Your task to perform on an android device: What's the weather today? Image 0: 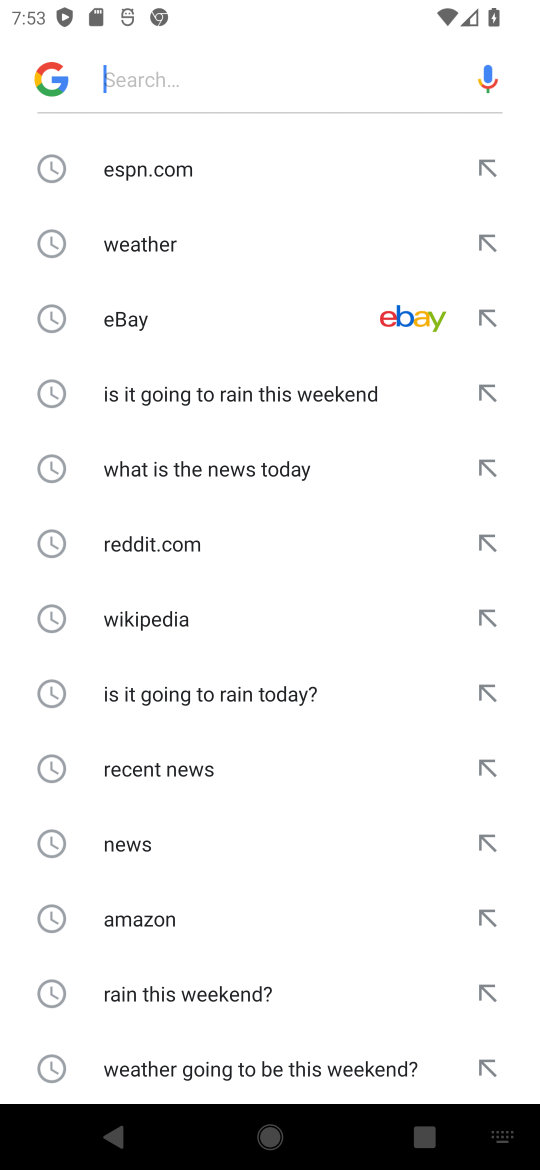
Step 0: press home button
Your task to perform on an android device: What's the weather today? Image 1: 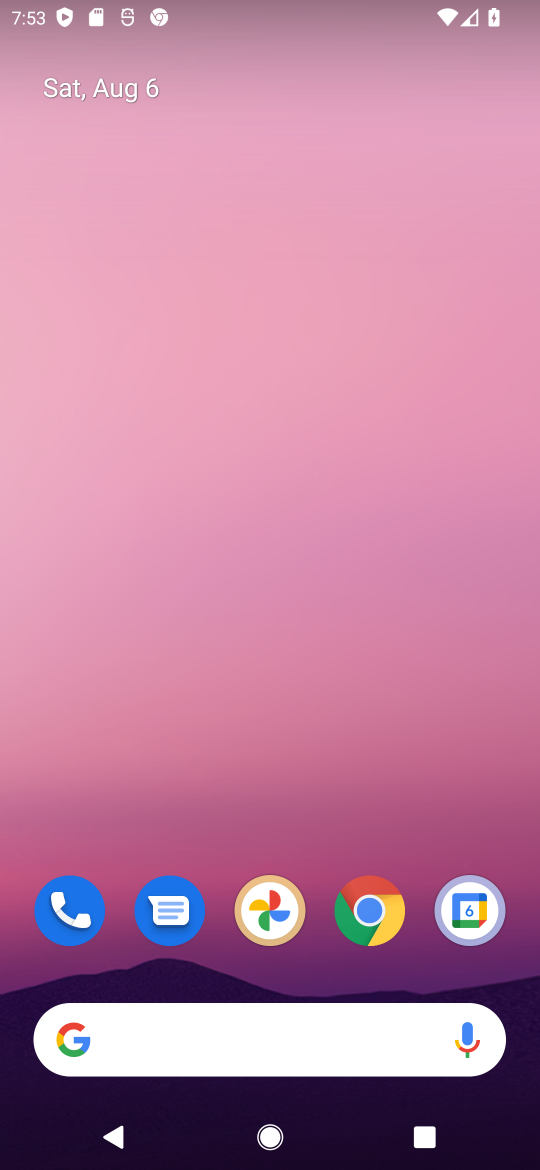
Step 1: drag from (508, 1122) to (479, 253)
Your task to perform on an android device: What's the weather today? Image 2: 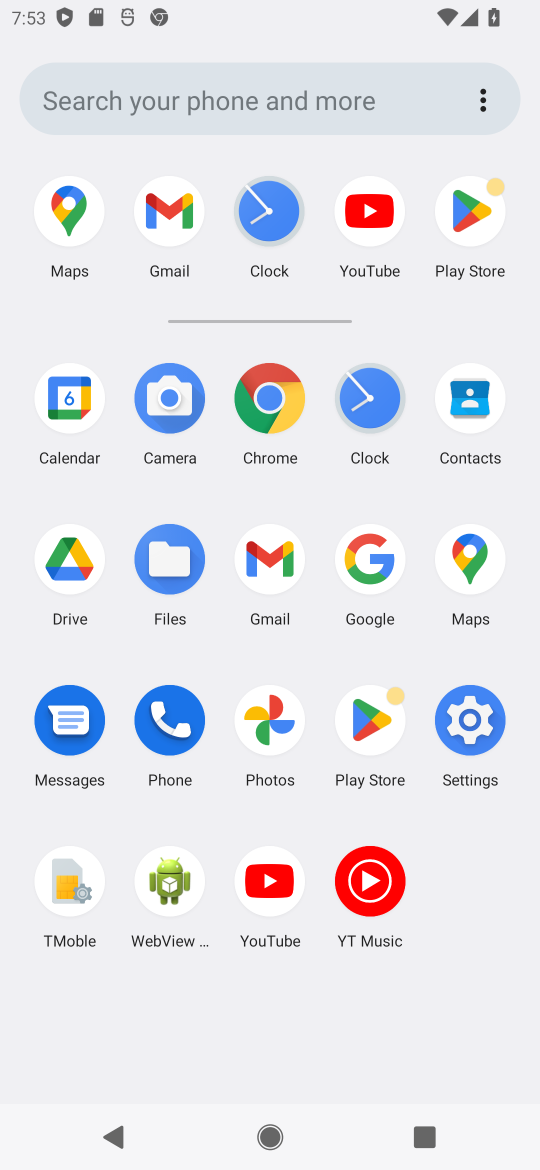
Step 2: click (357, 560)
Your task to perform on an android device: What's the weather today? Image 3: 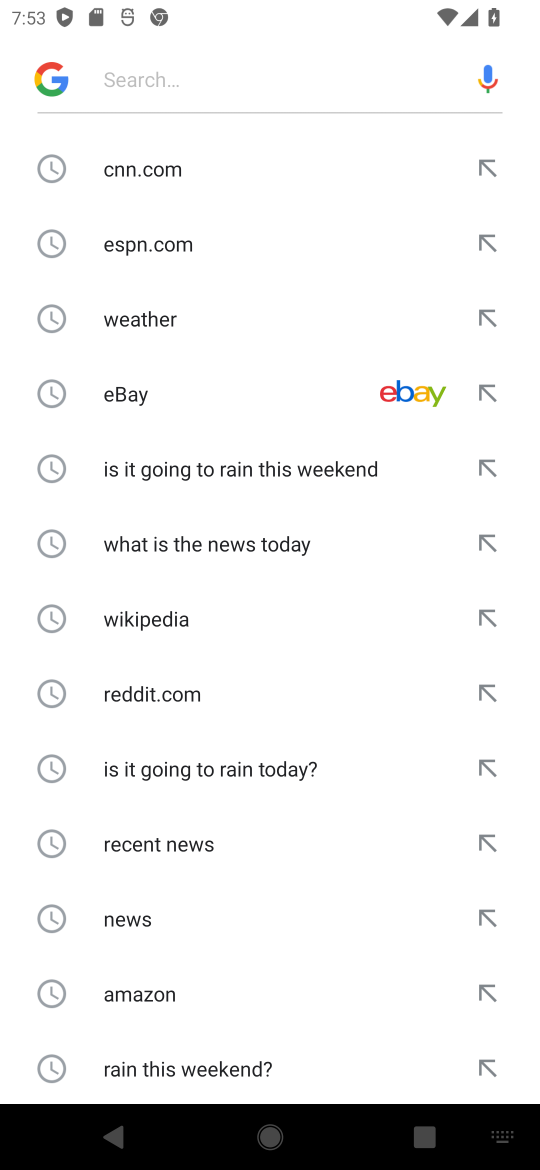
Step 3: click (136, 303)
Your task to perform on an android device: What's the weather today? Image 4: 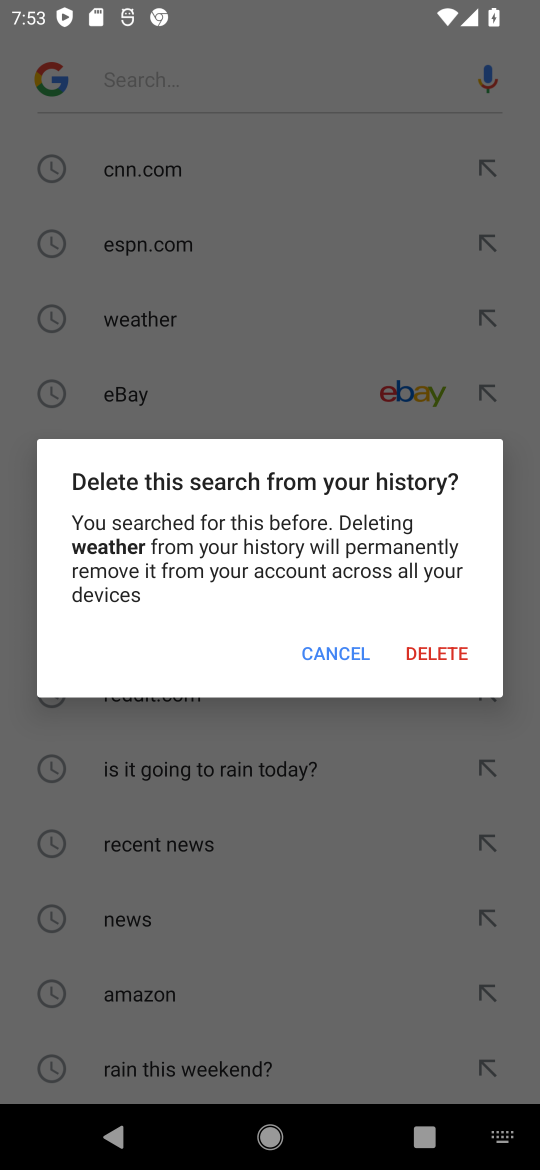
Step 4: click (337, 654)
Your task to perform on an android device: What's the weather today? Image 5: 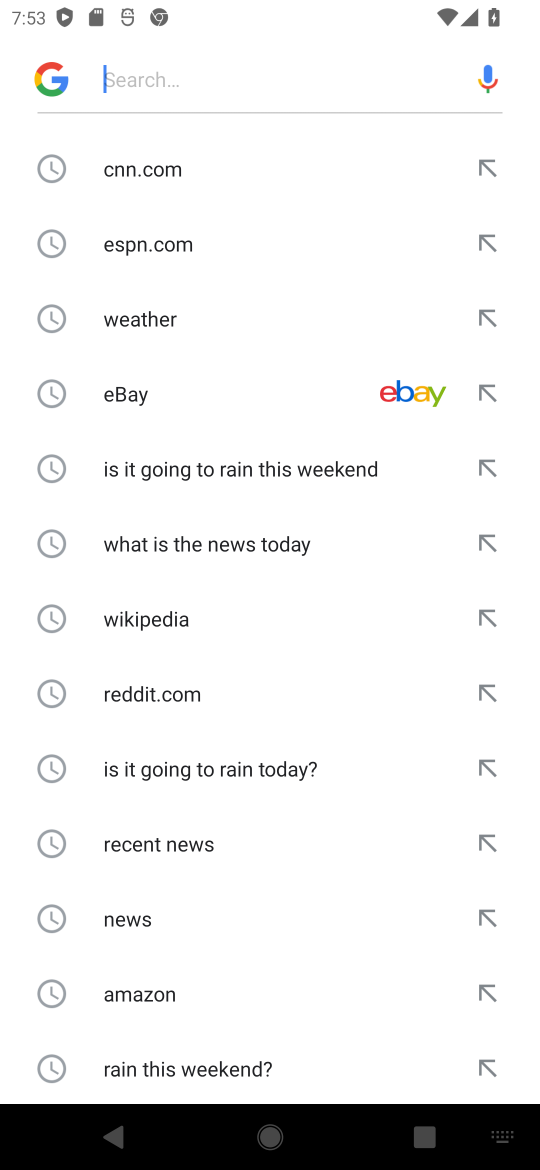
Step 5: click (165, 323)
Your task to perform on an android device: What's the weather today? Image 6: 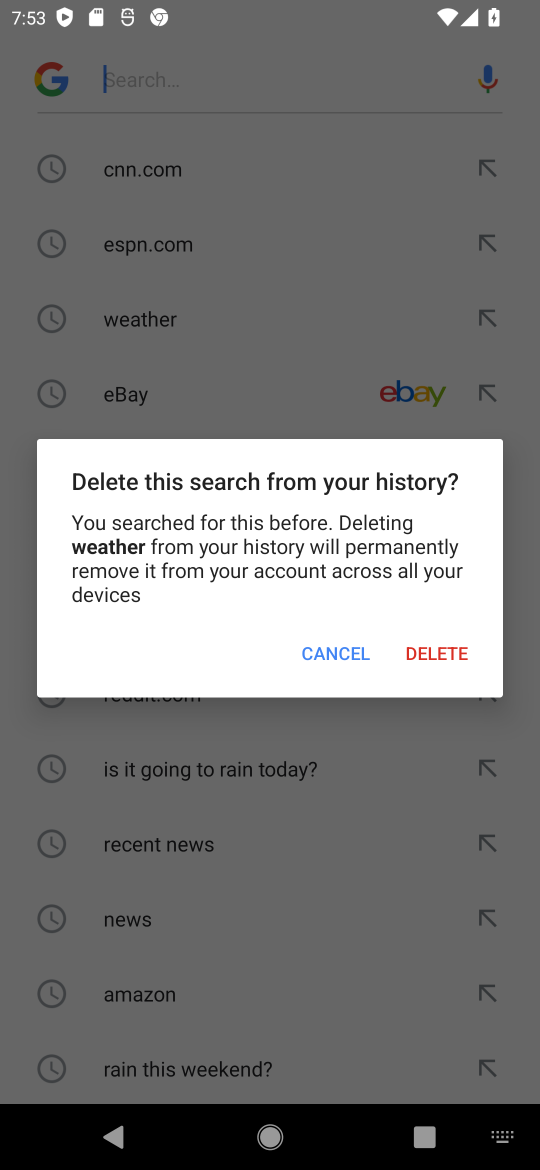
Step 6: click (427, 650)
Your task to perform on an android device: What's the weather today? Image 7: 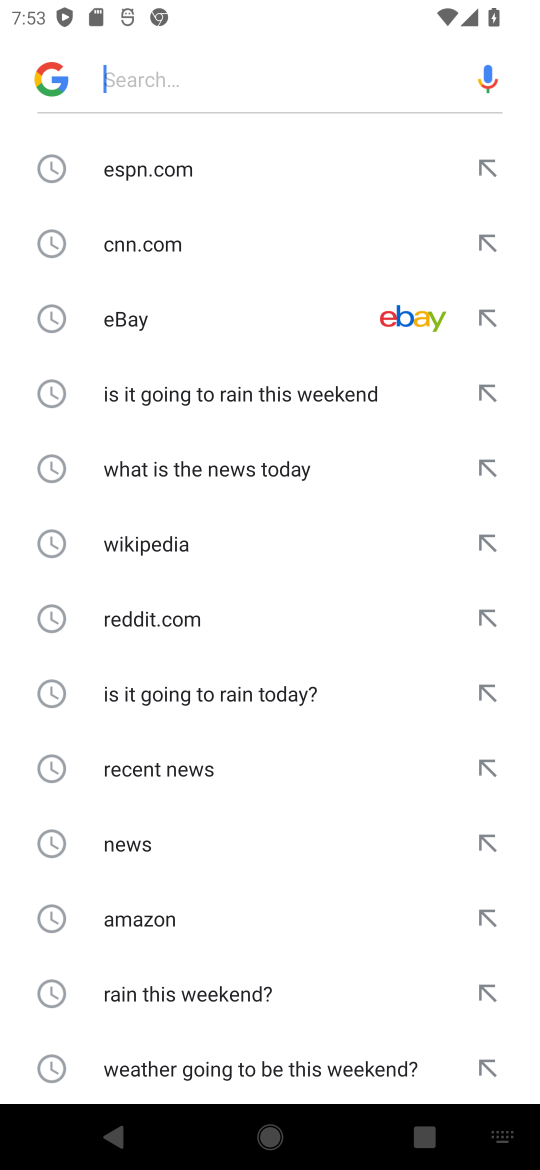
Step 7: task complete